Your task to perform on an android device: Is it going to rain tomorrow? Image 0: 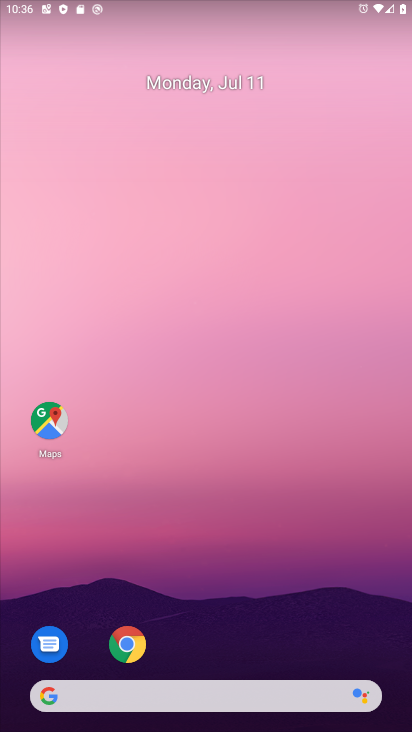
Step 0: click (244, 649)
Your task to perform on an android device: Is it going to rain tomorrow? Image 1: 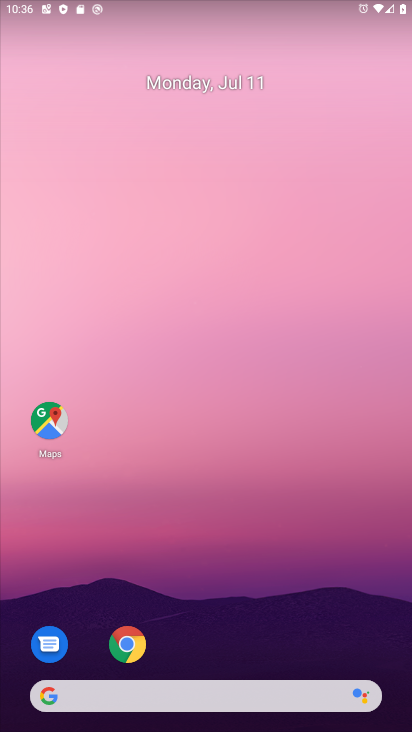
Step 1: click (195, 689)
Your task to perform on an android device: Is it going to rain tomorrow? Image 2: 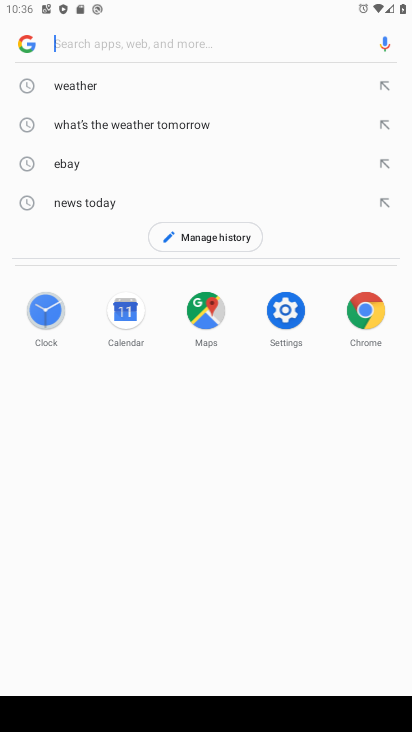
Step 2: click (164, 130)
Your task to perform on an android device: Is it going to rain tomorrow? Image 3: 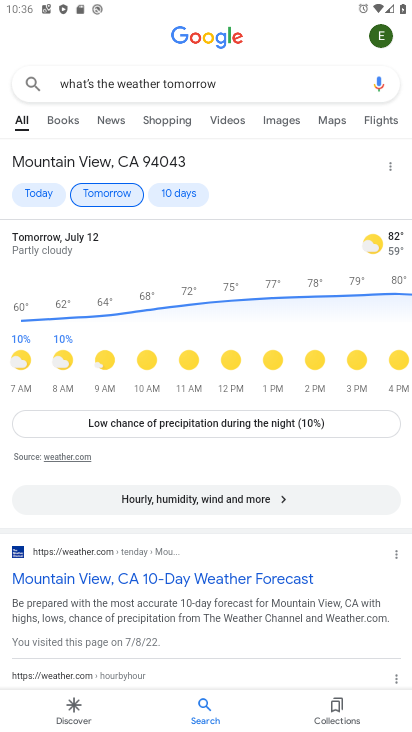
Step 3: task complete